Your task to perform on an android device: star an email in the gmail app Image 0: 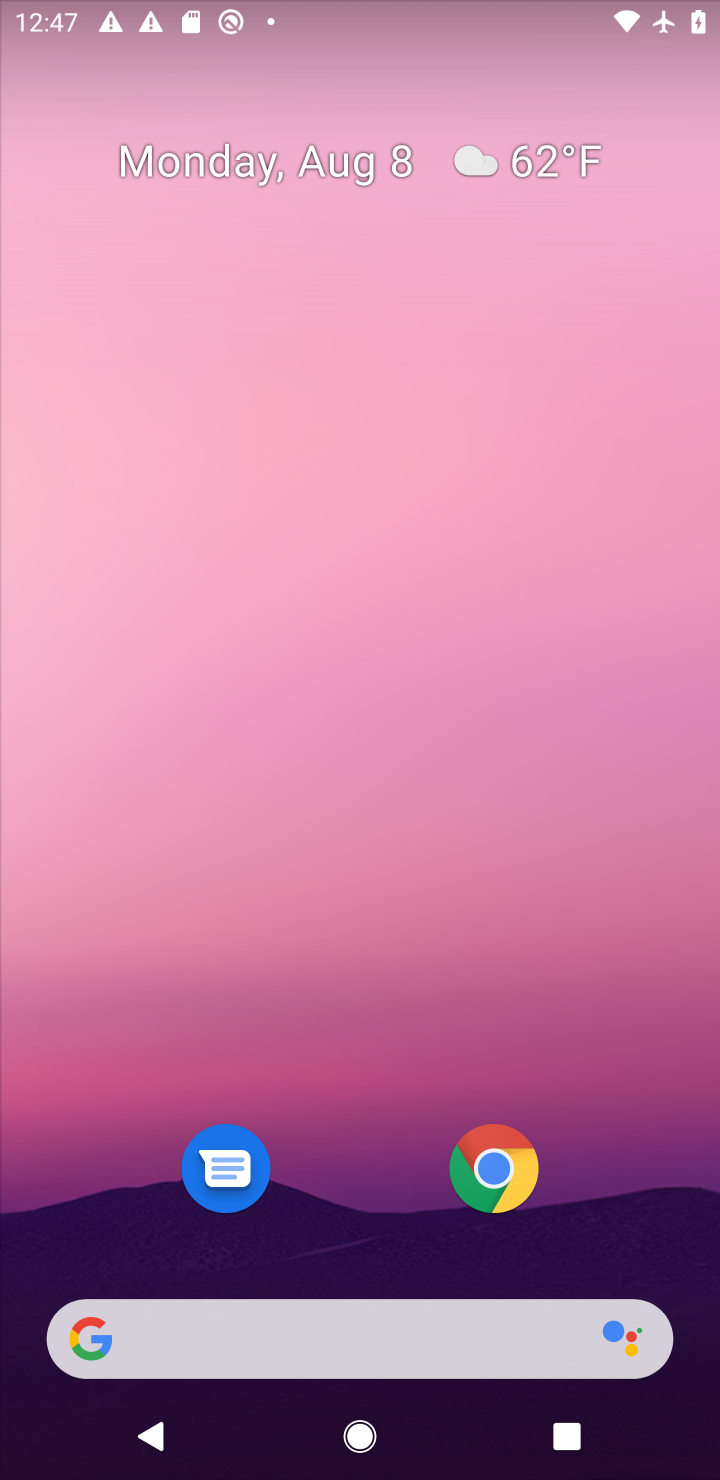
Step 0: drag from (348, 1287) to (315, 168)
Your task to perform on an android device: star an email in the gmail app Image 1: 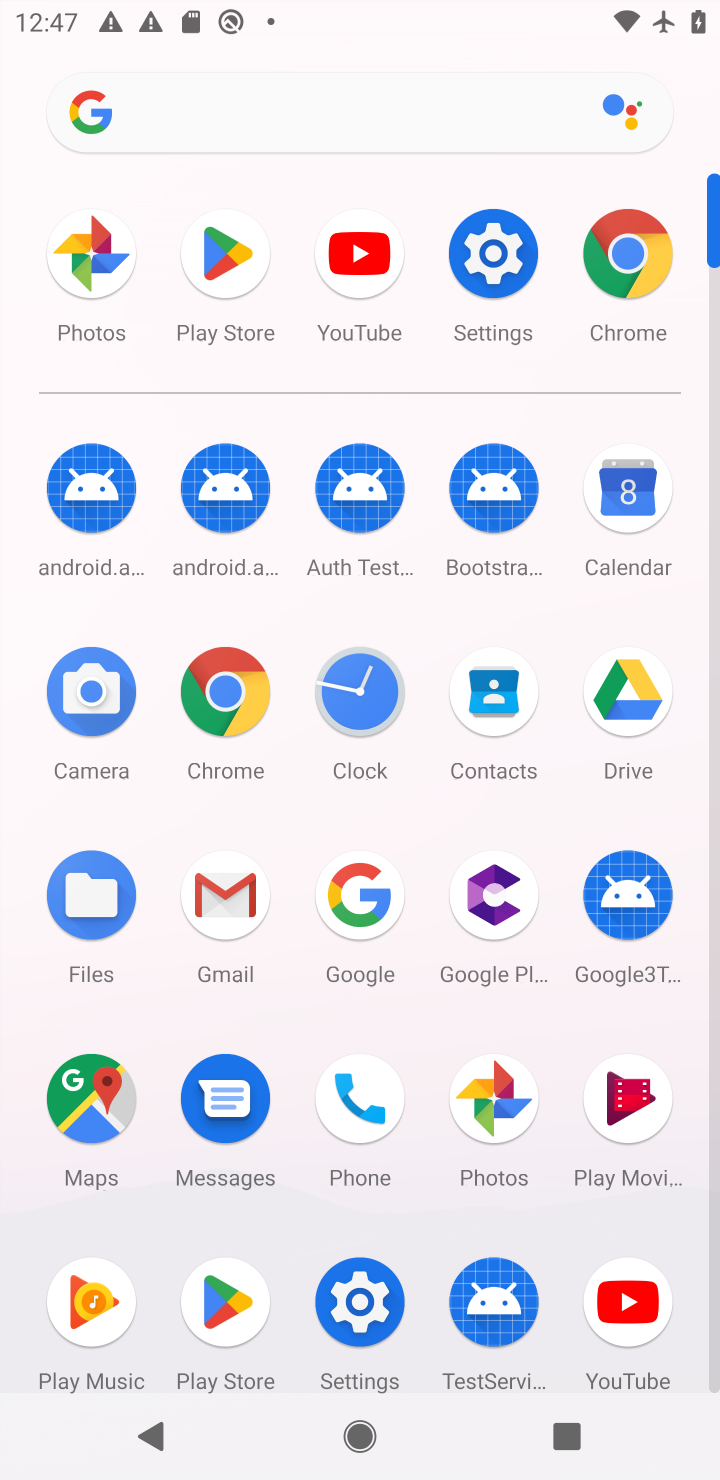
Step 1: task complete